Your task to perform on an android device: turn on sleep mode Image 0: 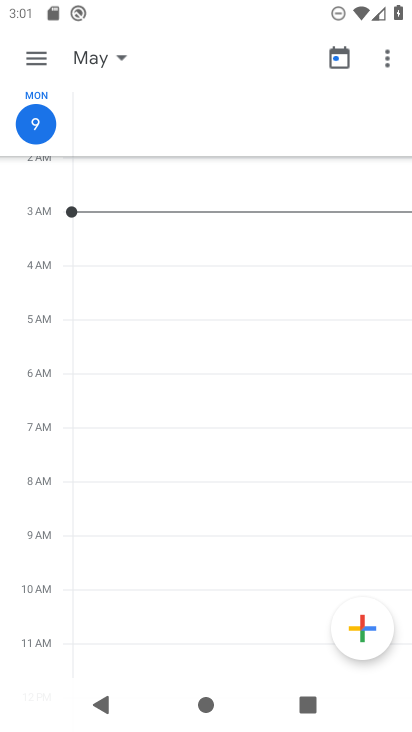
Step 0: press home button
Your task to perform on an android device: turn on sleep mode Image 1: 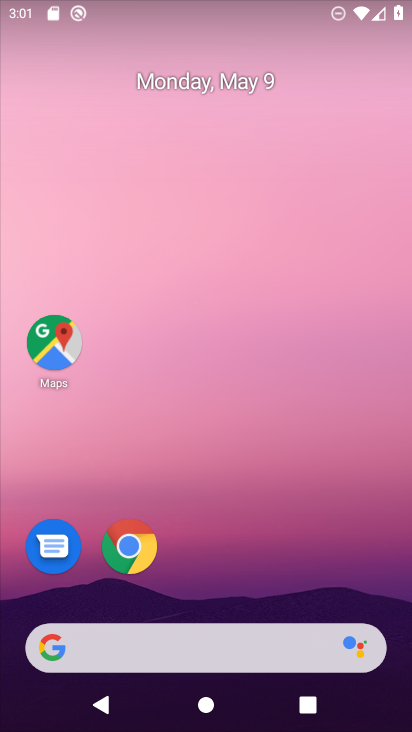
Step 1: drag from (196, 545) to (231, 196)
Your task to perform on an android device: turn on sleep mode Image 2: 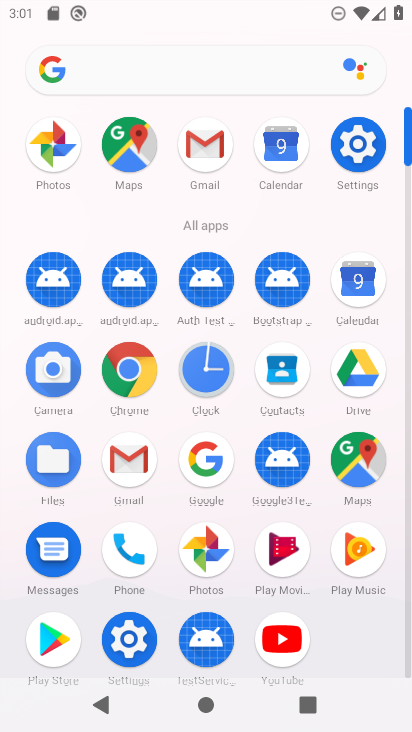
Step 2: click (373, 138)
Your task to perform on an android device: turn on sleep mode Image 3: 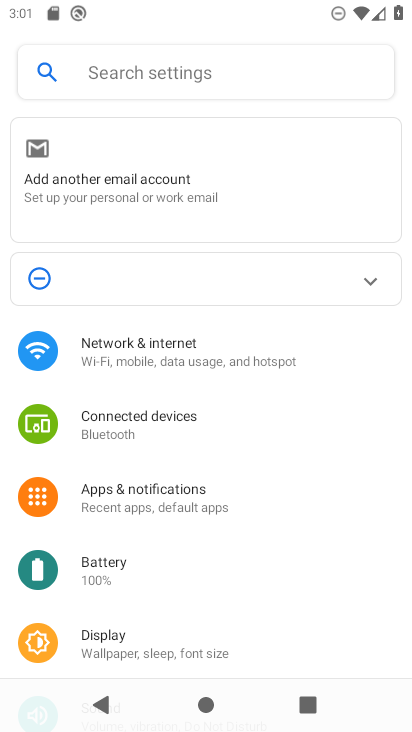
Step 3: click (167, 653)
Your task to perform on an android device: turn on sleep mode Image 4: 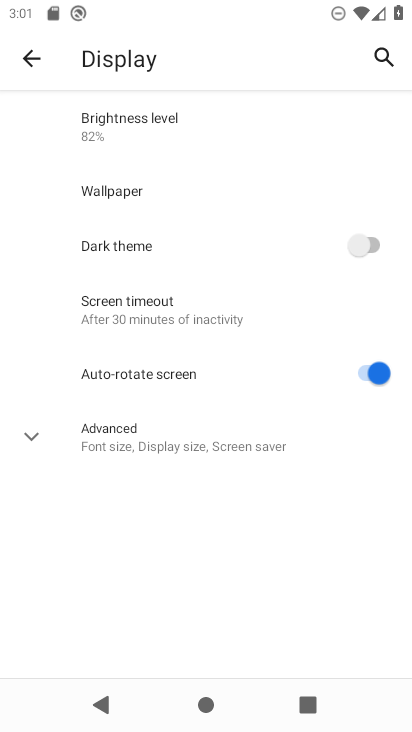
Step 4: click (217, 315)
Your task to perform on an android device: turn on sleep mode Image 5: 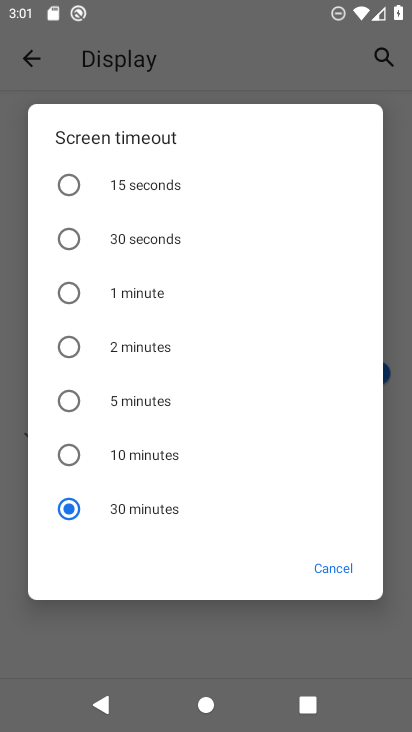
Step 5: task complete